Your task to perform on an android device: Open display settings Image 0: 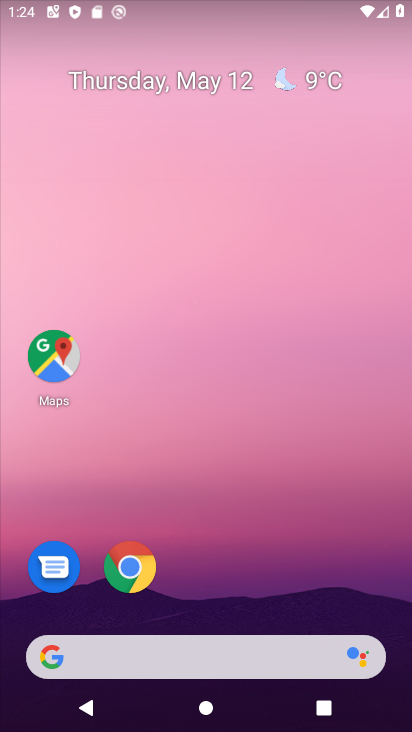
Step 0: drag from (215, 508) to (245, 55)
Your task to perform on an android device: Open display settings Image 1: 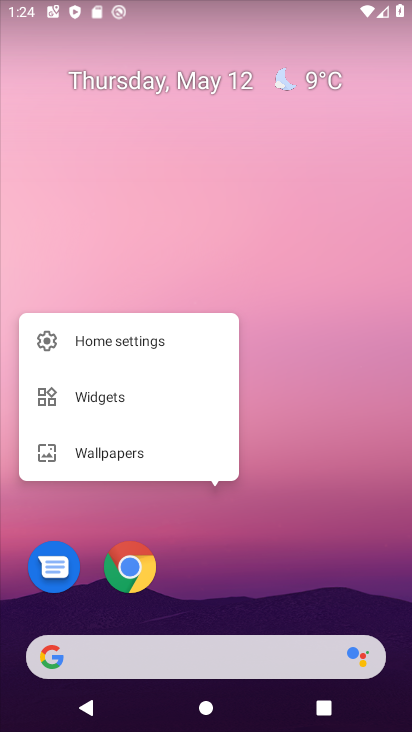
Step 1: click (326, 316)
Your task to perform on an android device: Open display settings Image 2: 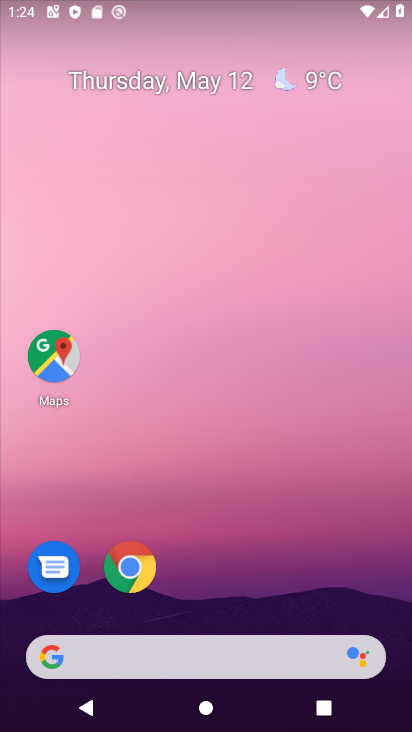
Step 2: drag from (244, 596) to (284, 19)
Your task to perform on an android device: Open display settings Image 3: 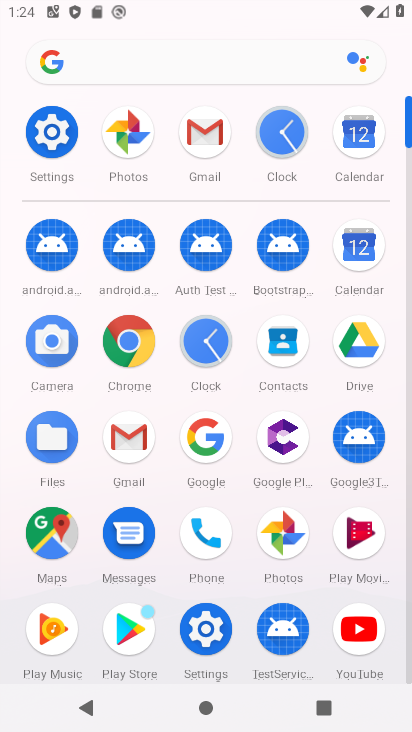
Step 3: click (52, 126)
Your task to perform on an android device: Open display settings Image 4: 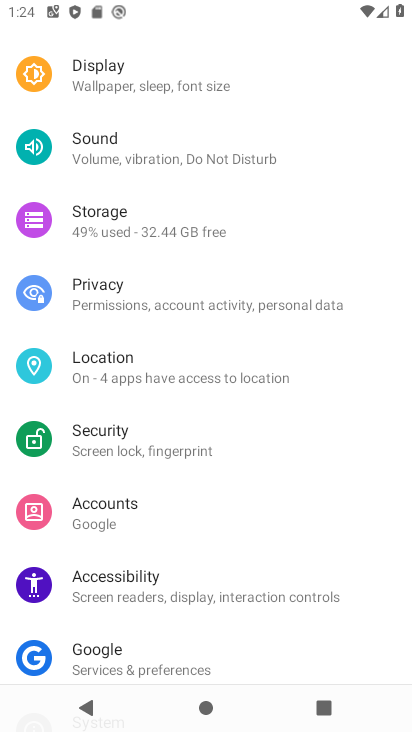
Step 4: click (135, 81)
Your task to perform on an android device: Open display settings Image 5: 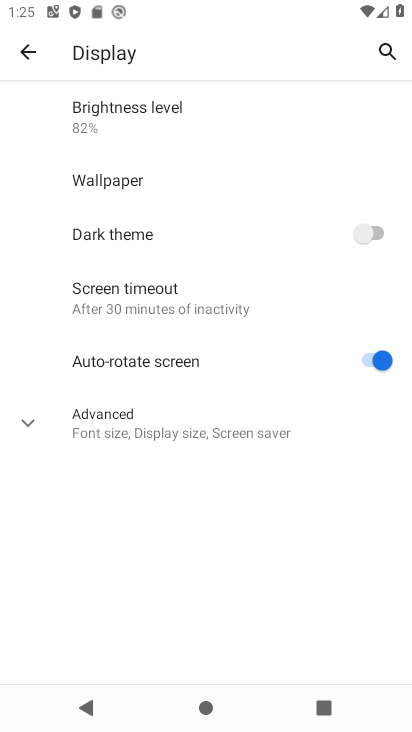
Step 5: click (31, 422)
Your task to perform on an android device: Open display settings Image 6: 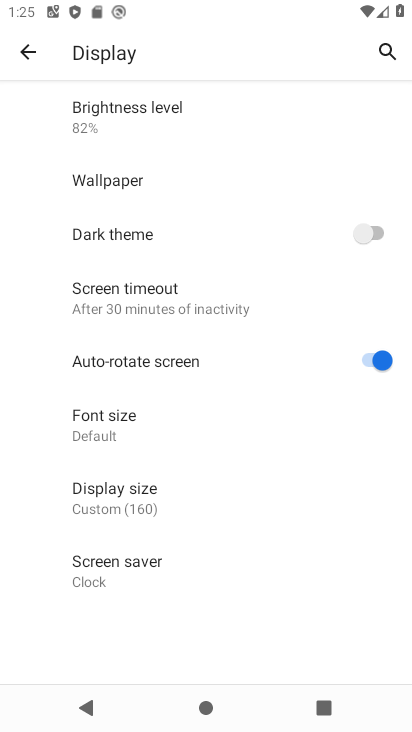
Step 6: task complete